Your task to perform on an android device: What is the news today? Image 0: 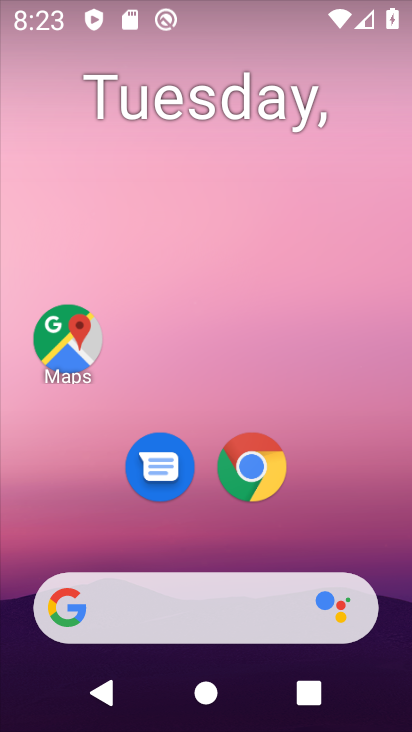
Step 0: drag from (340, 546) to (307, 123)
Your task to perform on an android device: What is the news today? Image 1: 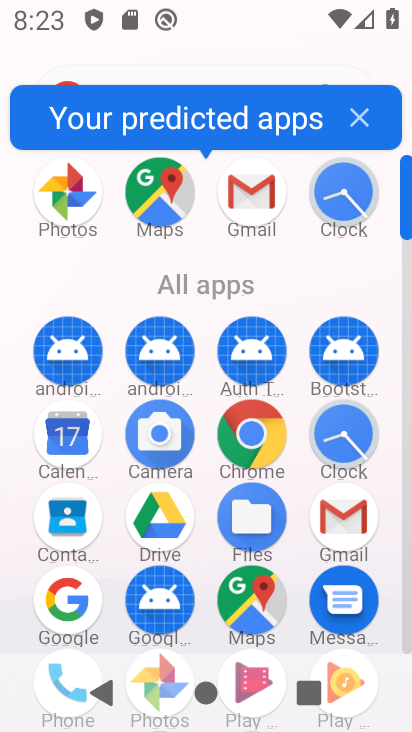
Step 1: click (270, 437)
Your task to perform on an android device: What is the news today? Image 2: 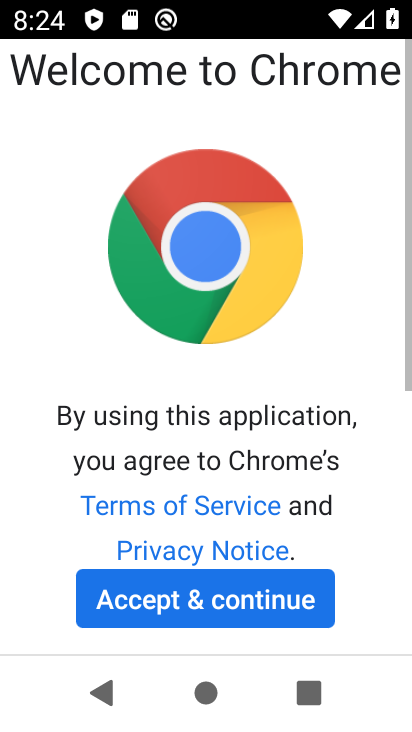
Step 2: click (272, 580)
Your task to perform on an android device: What is the news today? Image 3: 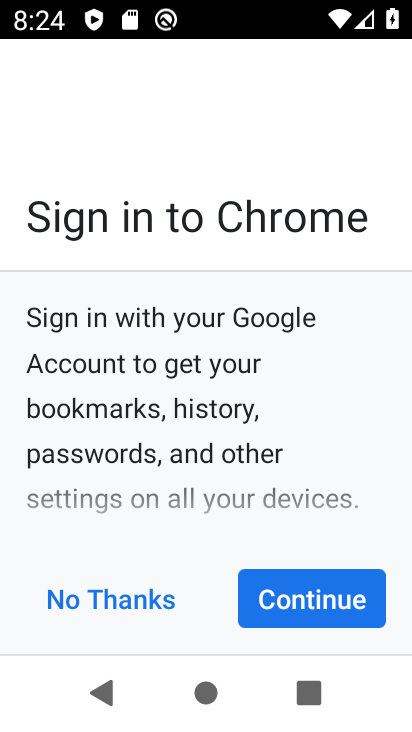
Step 3: click (272, 580)
Your task to perform on an android device: What is the news today? Image 4: 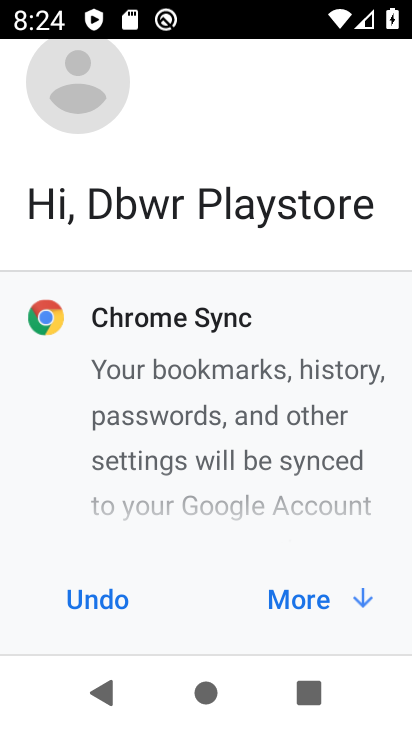
Step 4: click (272, 580)
Your task to perform on an android device: What is the news today? Image 5: 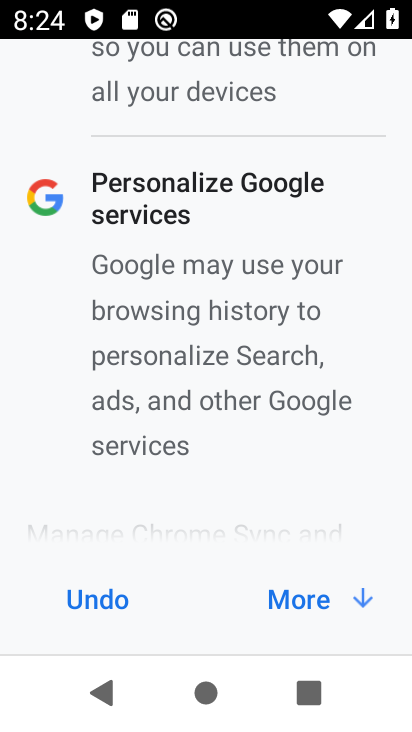
Step 5: click (272, 580)
Your task to perform on an android device: What is the news today? Image 6: 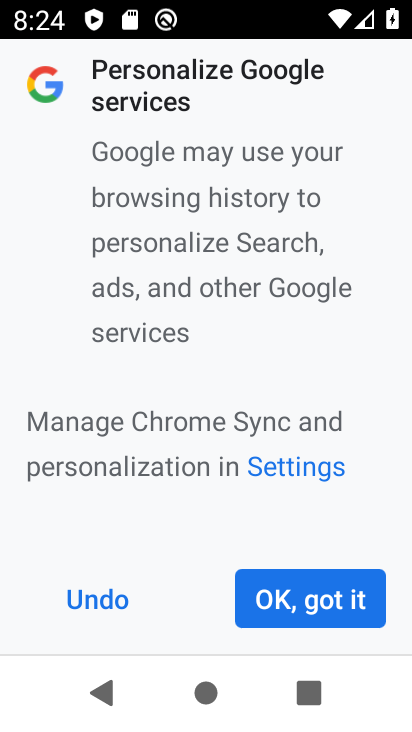
Step 6: click (272, 580)
Your task to perform on an android device: What is the news today? Image 7: 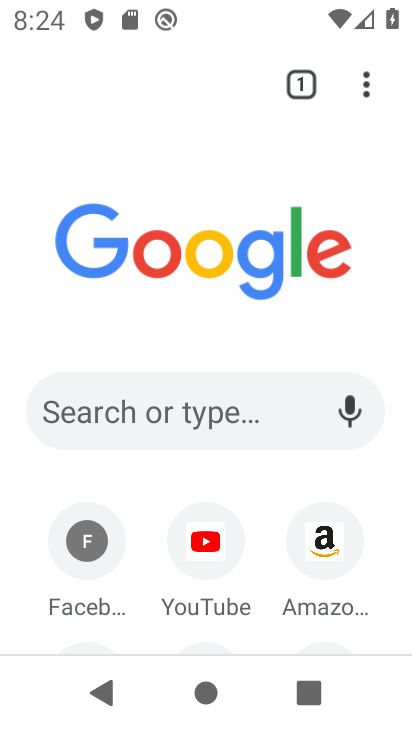
Step 7: click (231, 399)
Your task to perform on an android device: What is the news today? Image 8: 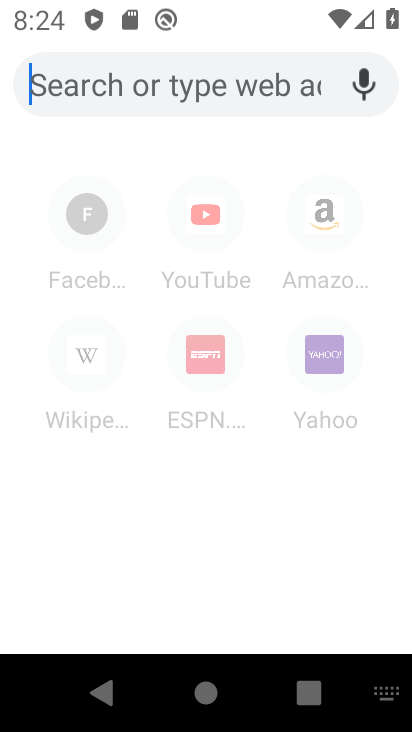
Step 8: type "What is the news today?"
Your task to perform on an android device: What is the news today? Image 9: 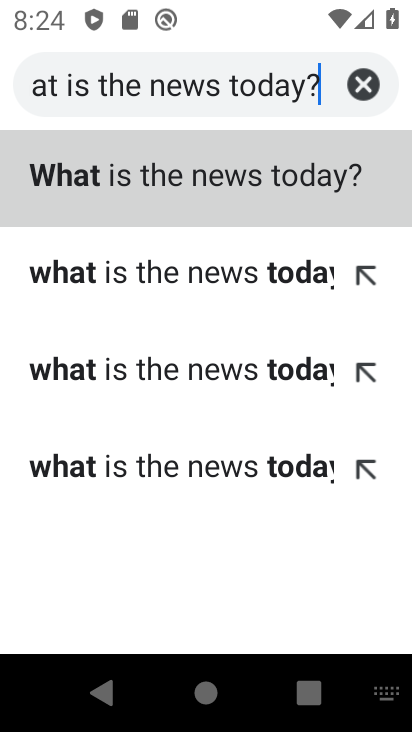
Step 9: click (241, 173)
Your task to perform on an android device: What is the news today? Image 10: 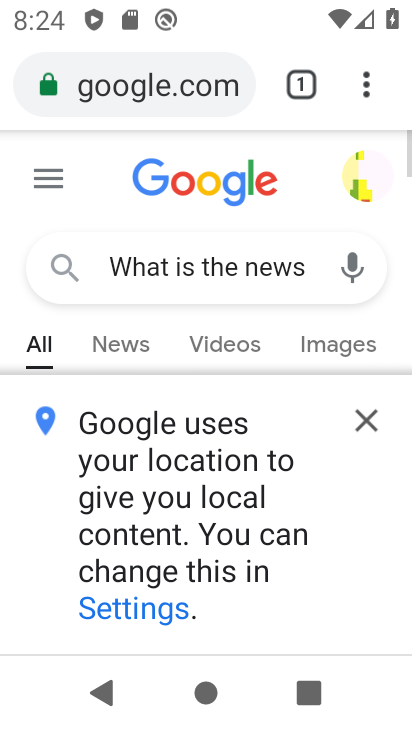
Step 10: click (360, 421)
Your task to perform on an android device: What is the news today? Image 11: 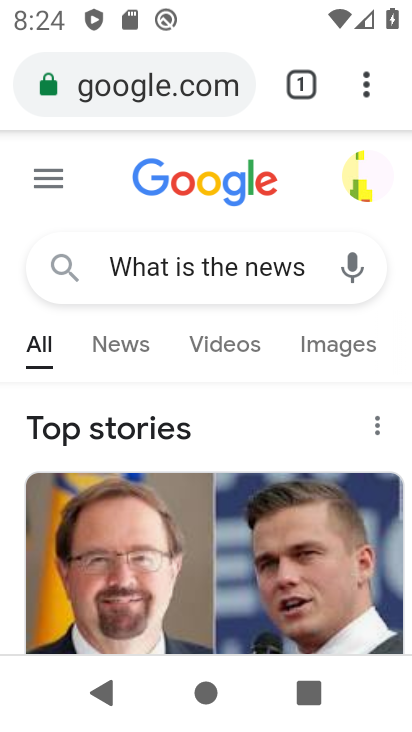
Step 11: task complete